Your task to perform on an android device: turn pop-ups on in chrome Image 0: 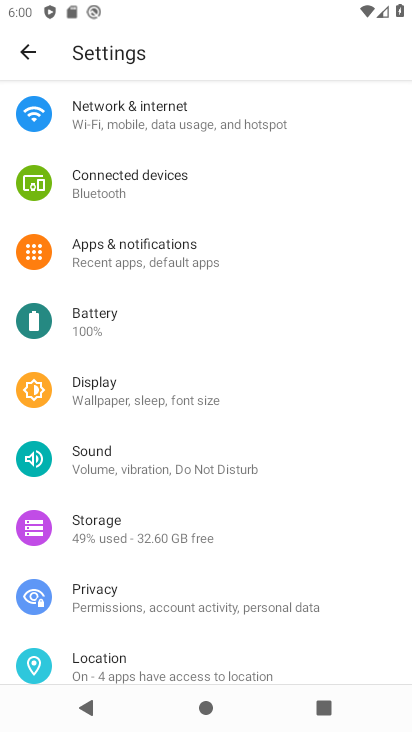
Step 0: press home button
Your task to perform on an android device: turn pop-ups on in chrome Image 1: 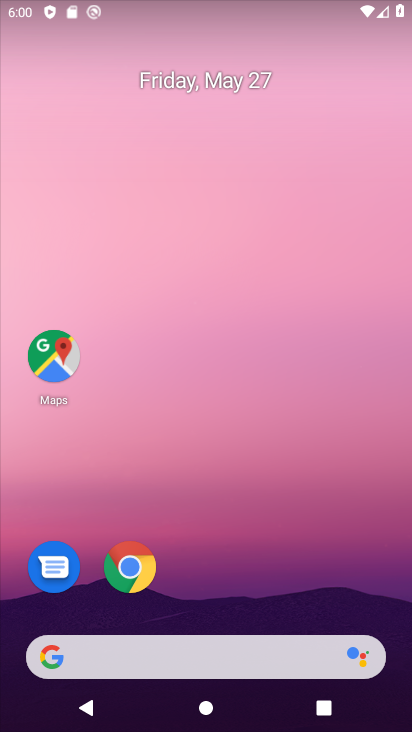
Step 1: click (133, 566)
Your task to perform on an android device: turn pop-ups on in chrome Image 2: 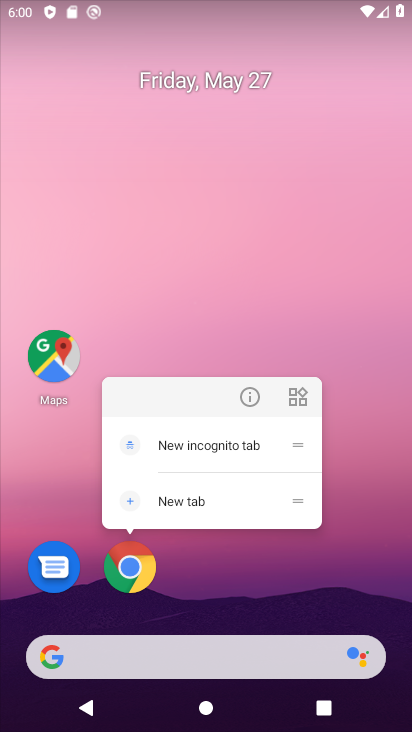
Step 2: click (124, 577)
Your task to perform on an android device: turn pop-ups on in chrome Image 3: 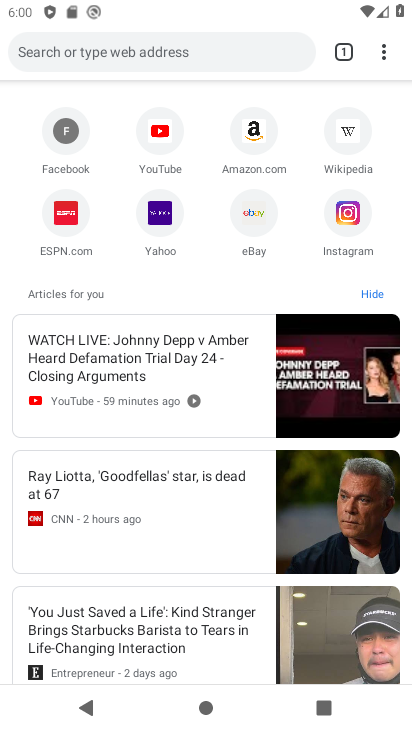
Step 3: click (380, 51)
Your task to perform on an android device: turn pop-ups on in chrome Image 4: 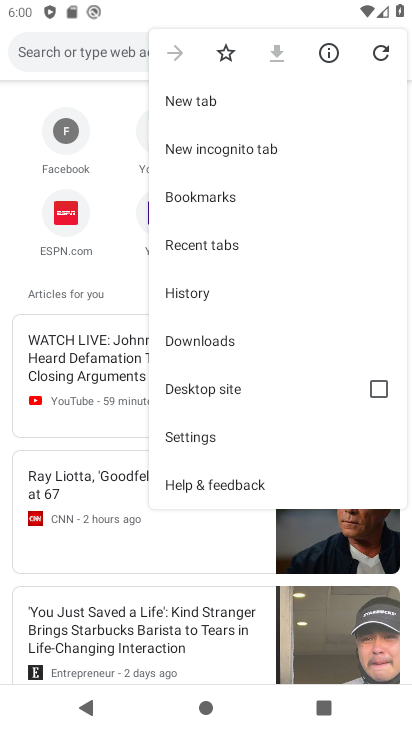
Step 4: click (205, 441)
Your task to perform on an android device: turn pop-ups on in chrome Image 5: 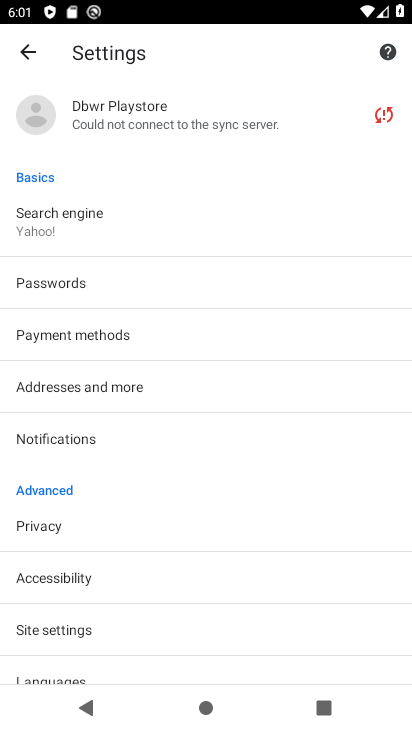
Step 5: click (61, 637)
Your task to perform on an android device: turn pop-ups on in chrome Image 6: 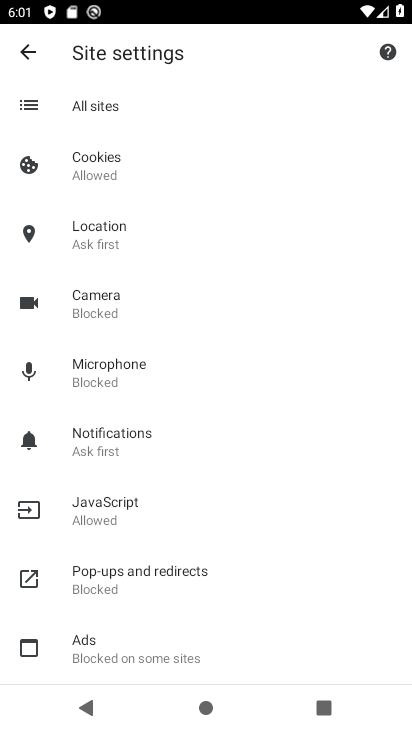
Step 6: click (98, 592)
Your task to perform on an android device: turn pop-ups on in chrome Image 7: 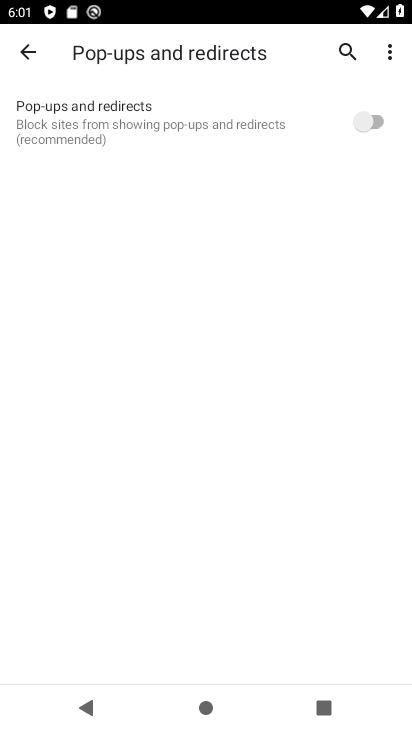
Step 7: click (383, 118)
Your task to perform on an android device: turn pop-ups on in chrome Image 8: 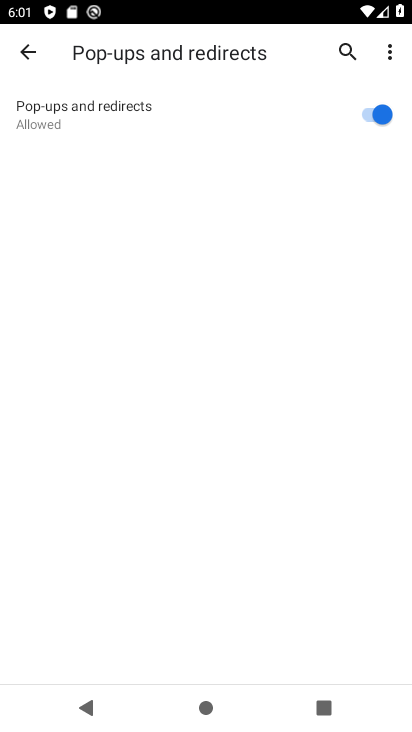
Step 8: task complete